Your task to perform on an android device: Empty the shopping cart on target. Search for "lenovo thinkpad" on target, select the first entry, add it to the cart, then select checkout. Image 0: 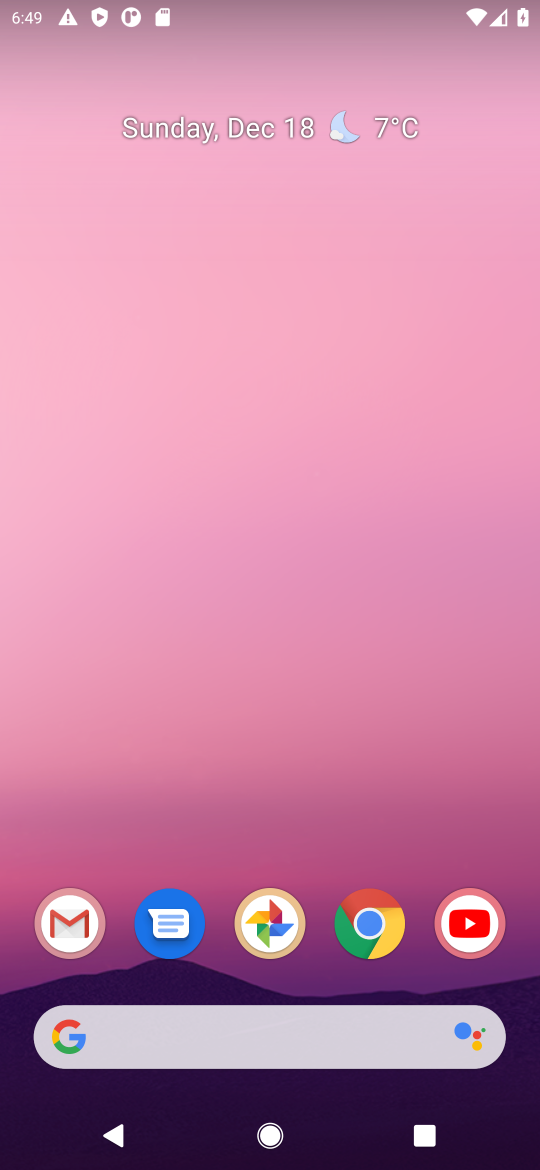
Step 0: press home button
Your task to perform on an android device: Empty the shopping cart on target. Search for "lenovo thinkpad" on target, select the first entry, add it to the cart, then select checkout. Image 1: 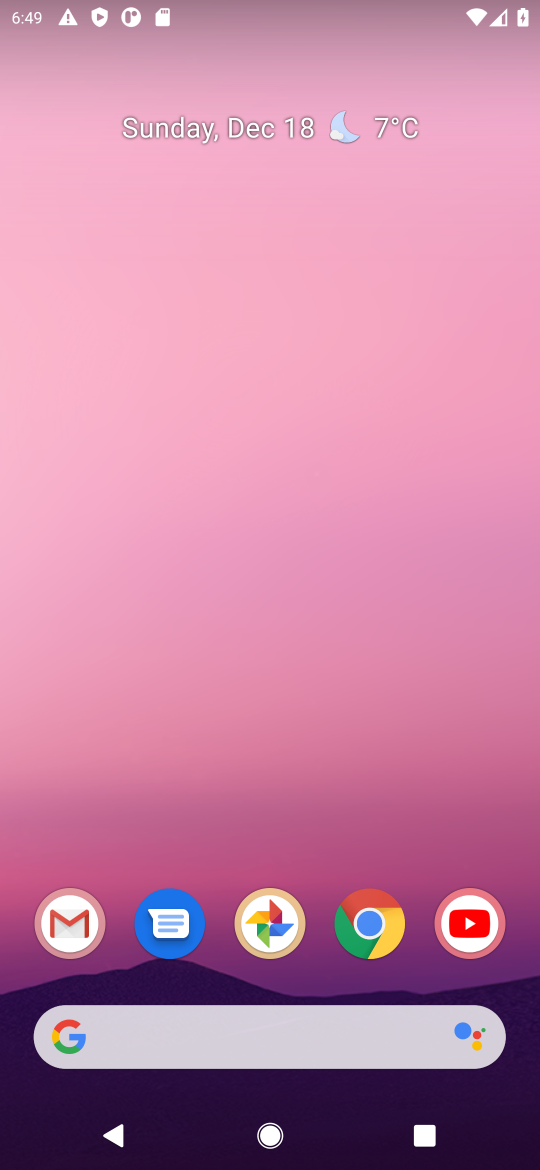
Step 1: click (93, 1032)
Your task to perform on an android device: Empty the shopping cart on target. Search for "lenovo thinkpad" on target, select the first entry, add it to the cart, then select checkout. Image 2: 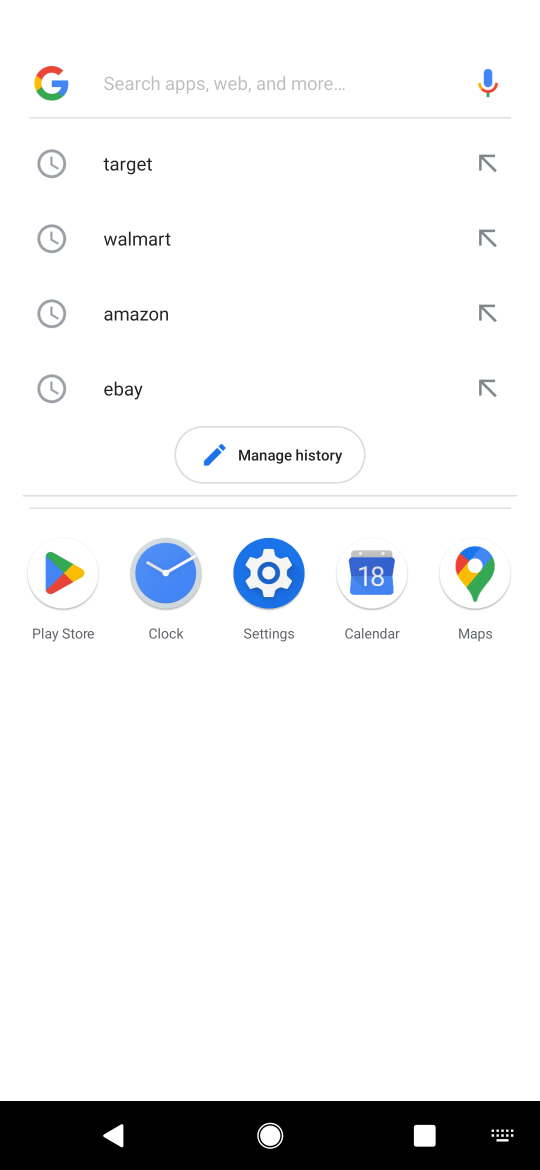
Step 2: type "target"
Your task to perform on an android device: Empty the shopping cart on target. Search for "lenovo thinkpad" on target, select the first entry, add it to the cart, then select checkout. Image 3: 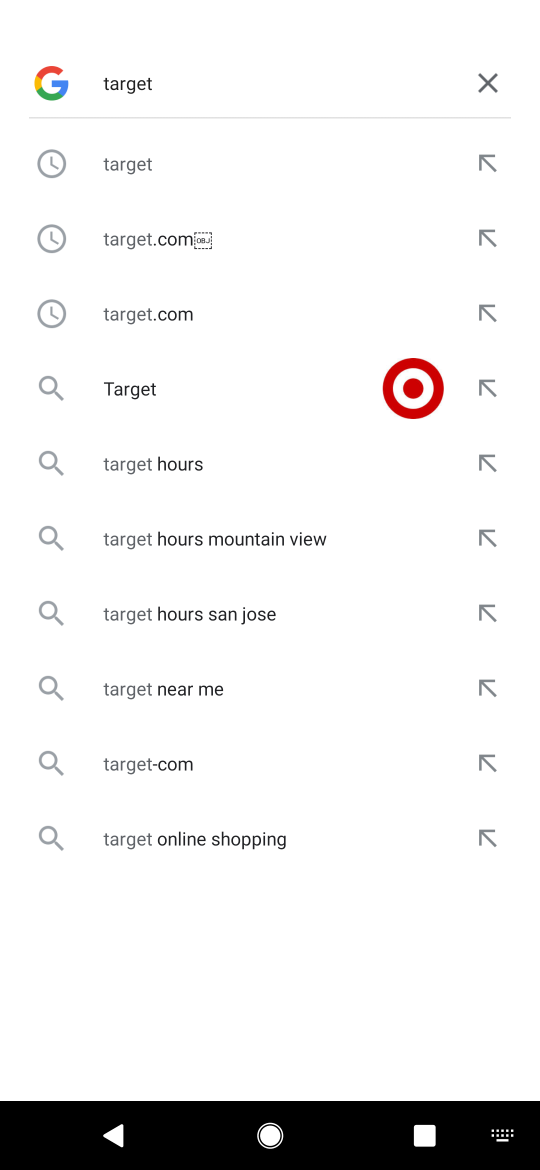
Step 3: press enter
Your task to perform on an android device: Empty the shopping cart on target. Search for "lenovo thinkpad" on target, select the first entry, add it to the cart, then select checkout. Image 4: 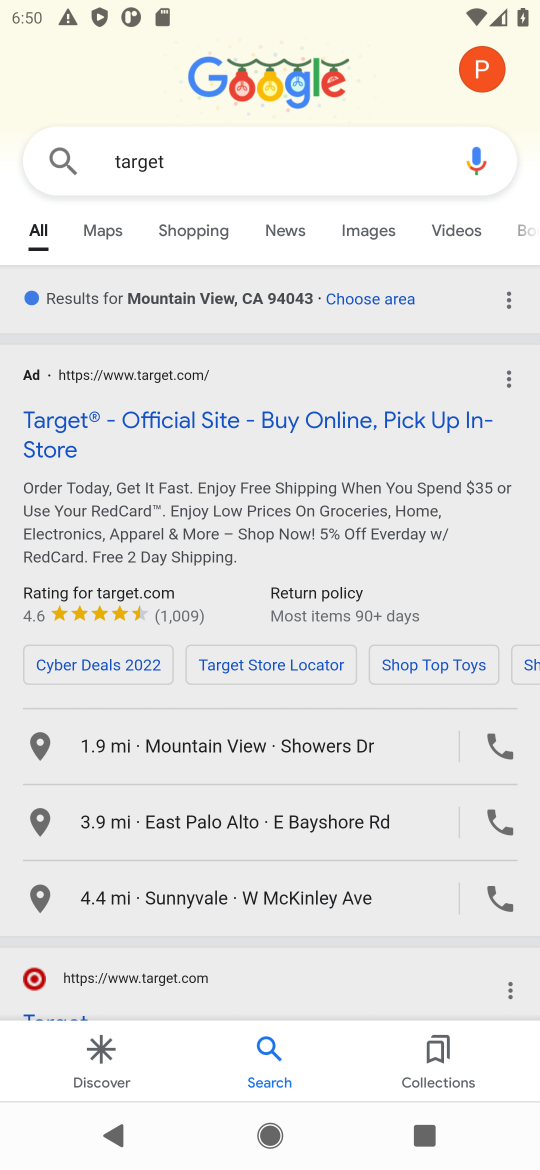
Step 4: click (307, 415)
Your task to perform on an android device: Empty the shopping cart on target. Search for "lenovo thinkpad" on target, select the first entry, add it to the cart, then select checkout. Image 5: 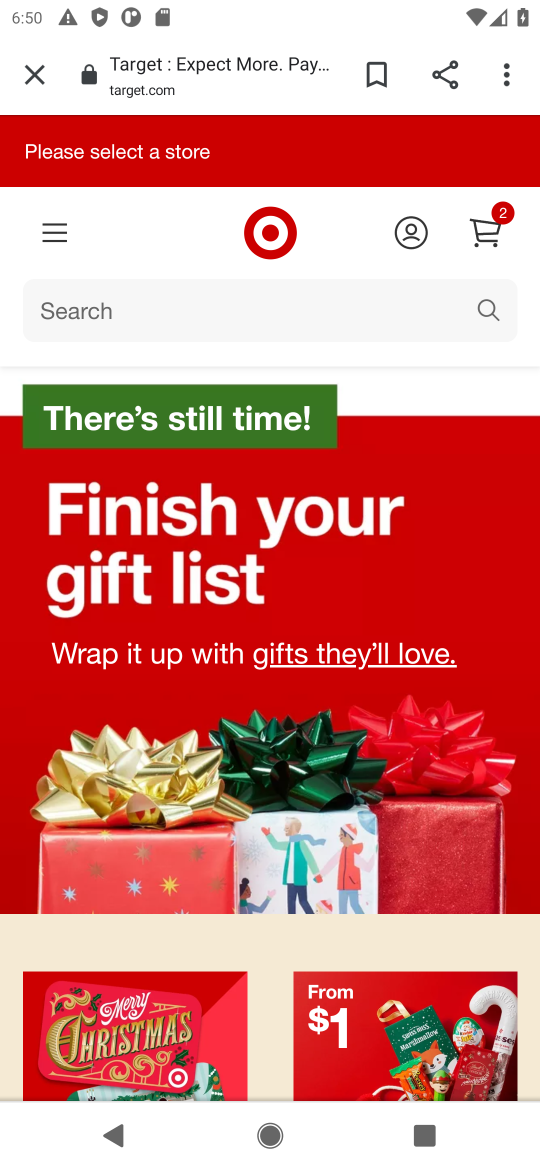
Step 5: click (485, 227)
Your task to perform on an android device: Empty the shopping cart on target. Search for "lenovo thinkpad" on target, select the first entry, add it to the cart, then select checkout. Image 6: 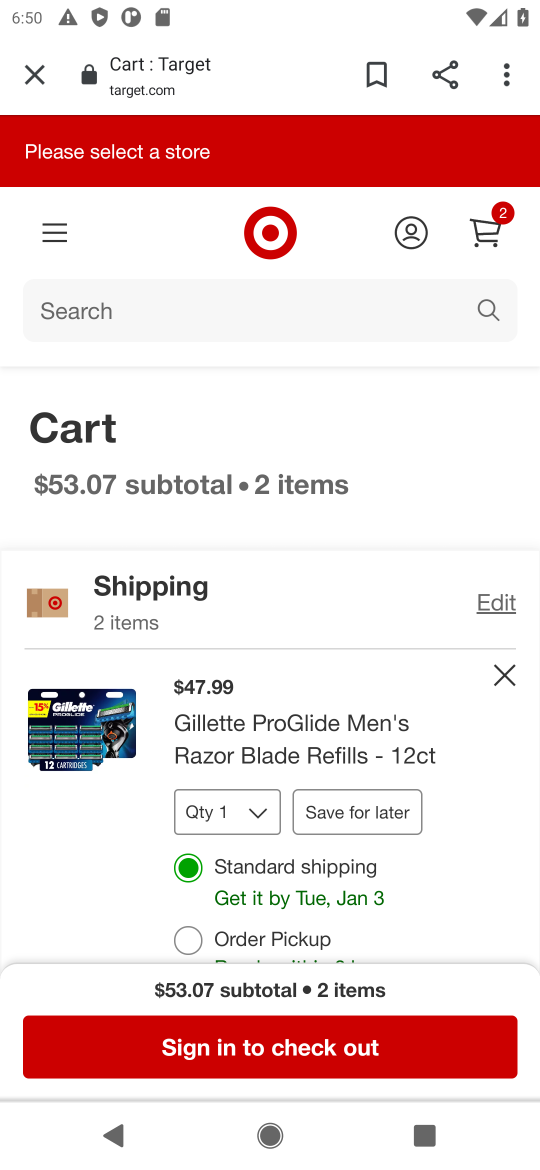
Step 6: click (507, 672)
Your task to perform on an android device: Empty the shopping cart on target. Search for "lenovo thinkpad" on target, select the first entry, add it to the cart, then select checkout. Image 7: 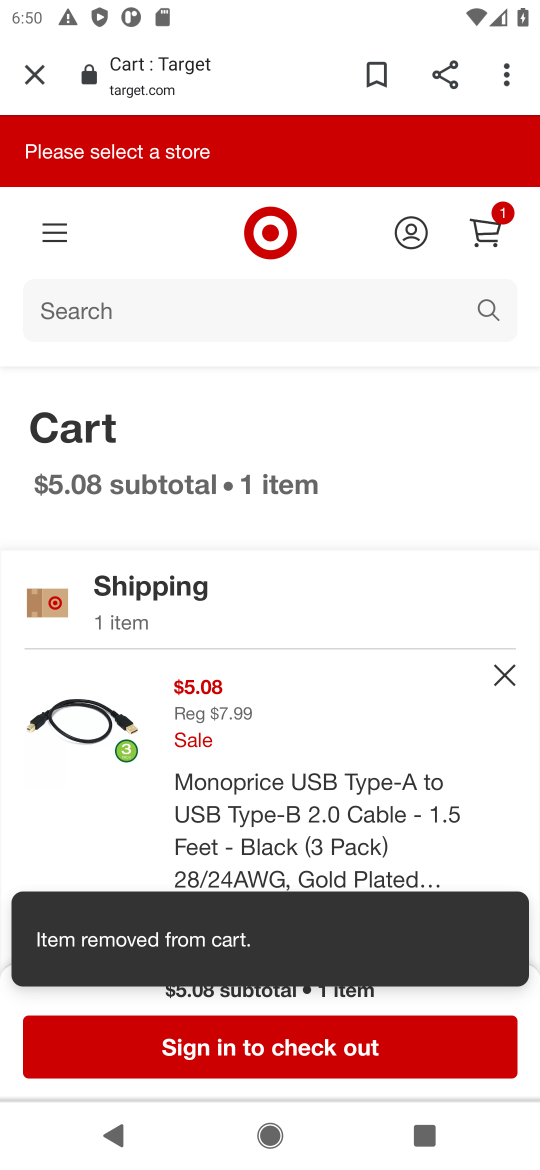
Step 7: click (502, 671)
Your task to perform on an android device: Empty the shopping cart on target. Search for "lenovo thinkpad" on target, select the first entry, add it to the cart, then select checkout. Image 8: 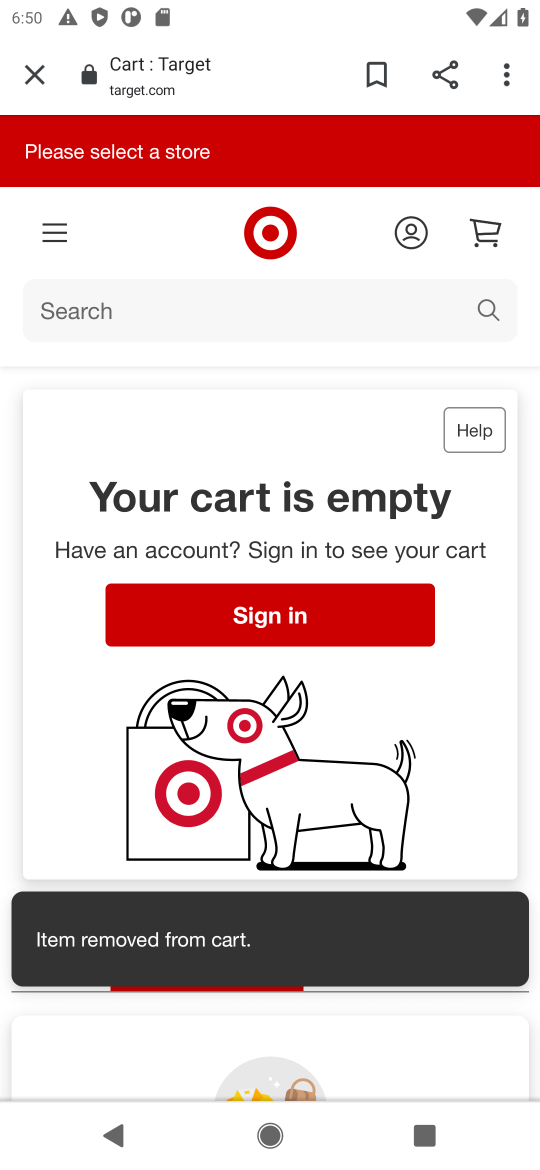
Step 8: click (63, 304)
Your task to perform on an android device: Empty the shopping cart on target. Search for "lenovo thinkpad" on target, select the first entry, add it to the cart, then select checkout. Image 9: 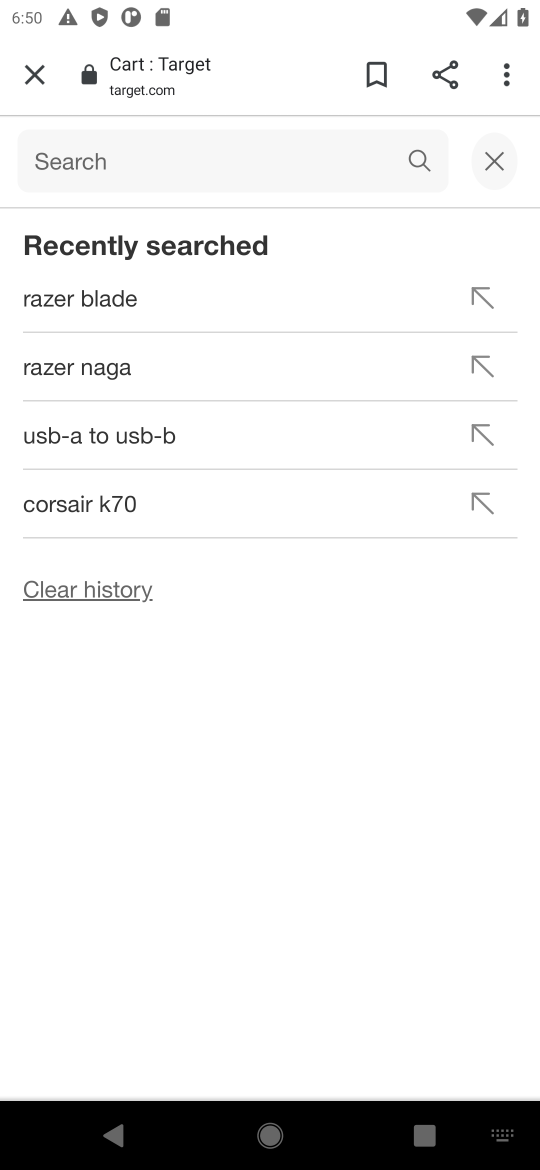
Step 9: type "lenovo thinkpad"
Your task to perform on an android device: Empty the shopping cart on target. Search for "lenovo thinkpad" on target, select the first entry, add it to the cart, then select checkout. Image 10: 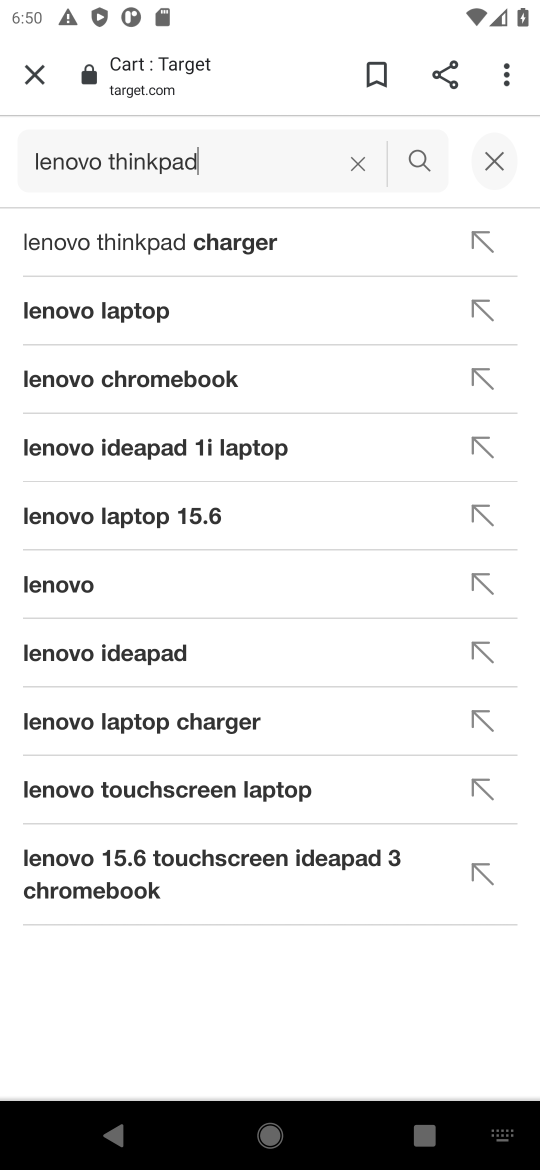
Step 10: press enter
Your task to perform on an android device: Empty the shopping cart on target. Search for "lenovo thinkpad" on target, select the first entry, add it to the cart, then select checkout. Image 11: 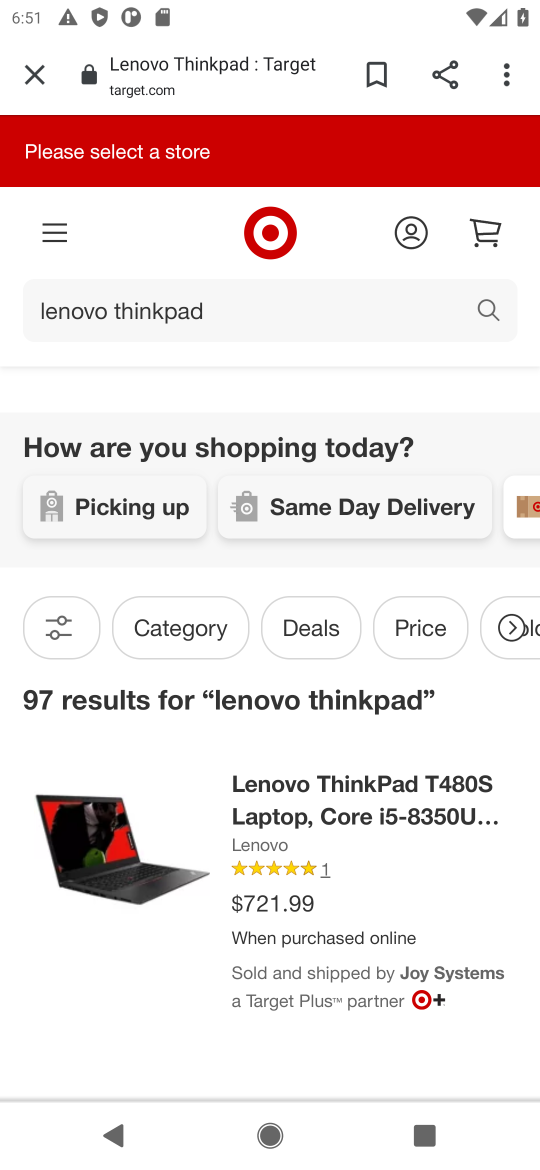
Step 11: click (280, 819)
Your task to perform on an android device: Empty the shopping cart on target. Search for "lenovo thinkpad" on target, select the first entry, add it to the cart, then select checkout. Image 12: 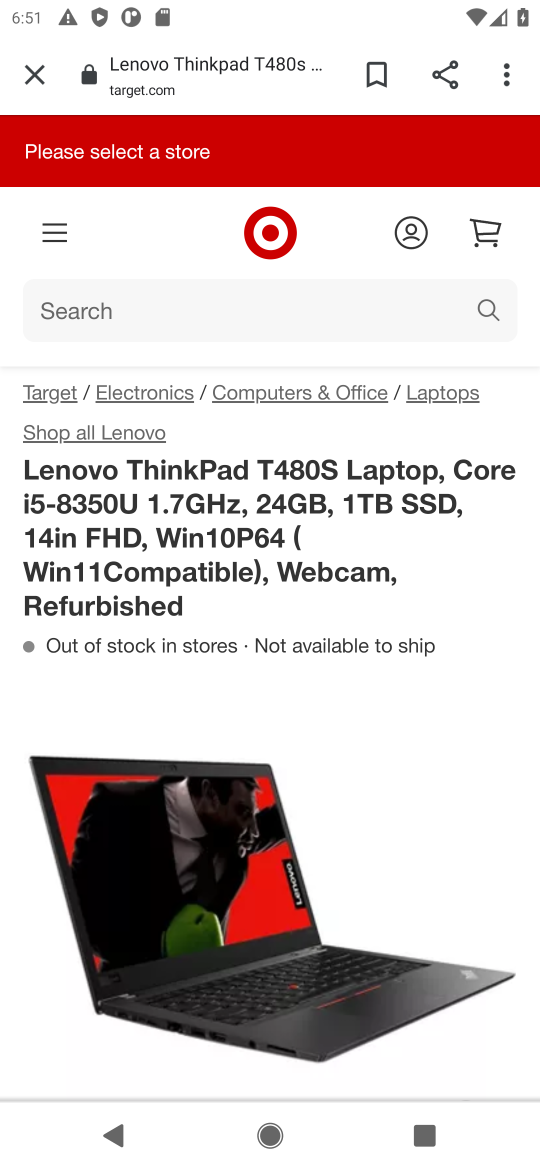
Step 12: drag from (328, 952) to (324, 312)
Your task to perform on an android device: Empty the shopping cart on target. Search for "lenovo thinkpad" on target, select the first entry, add it to the cart, then select checkout. Image 13: 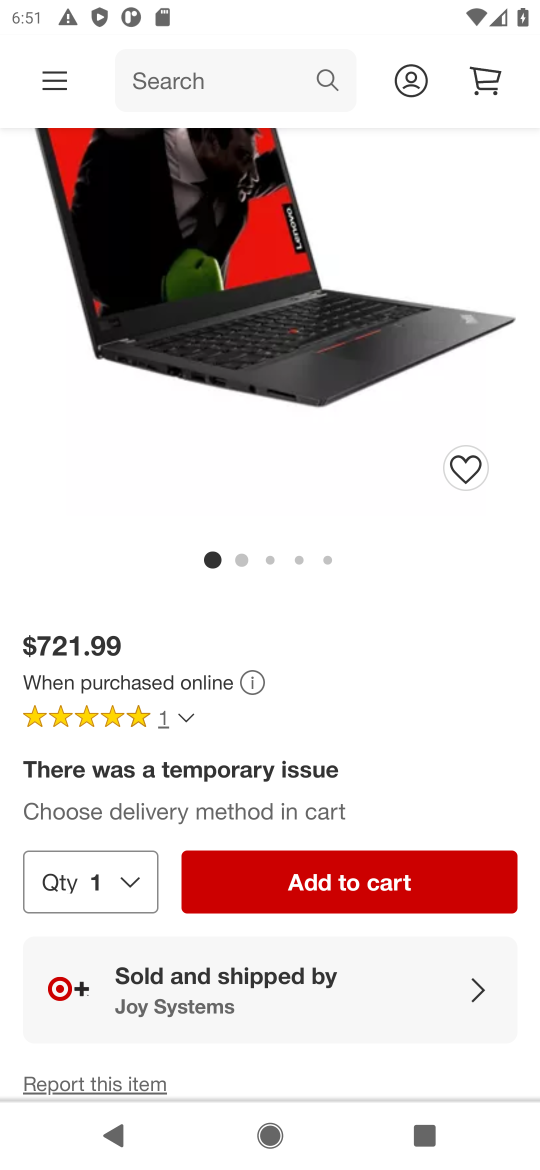
Step 13: click (330, 877)
Your task to perform on an android device: Empty the shopping cart on target. Search for "lenovo thinkpad" on target, select the first entry, add it to the cart, then select checkout. Image 14: 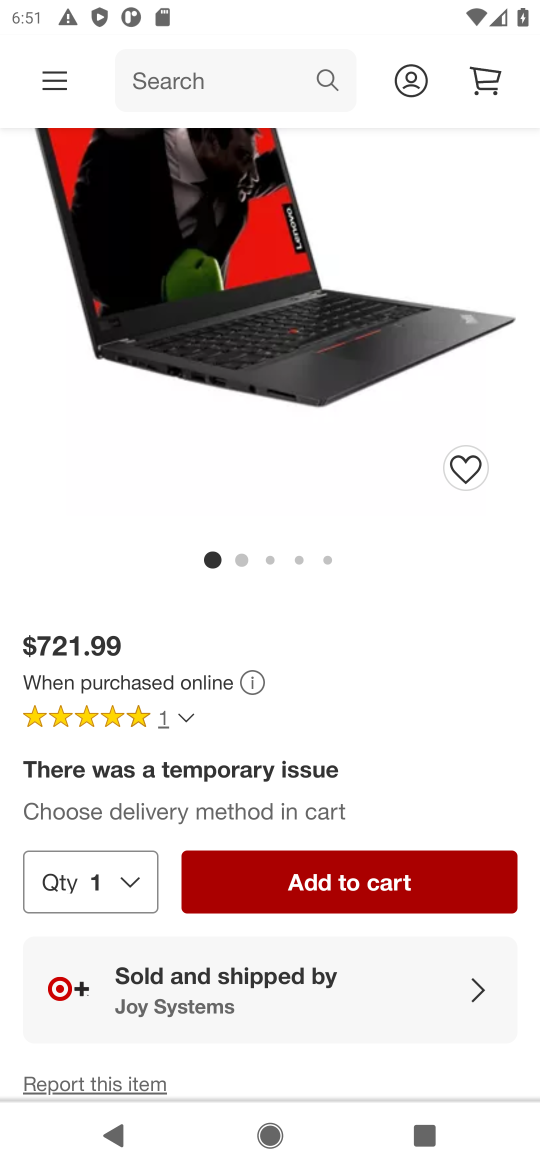
Step 14: click (314, 883)
Your task to perform on an android device: Empty the shopping cart on target. Search for "lenovo thinkpad" on target, select the first entry, add it to the cart, then select checkout. Image 15: 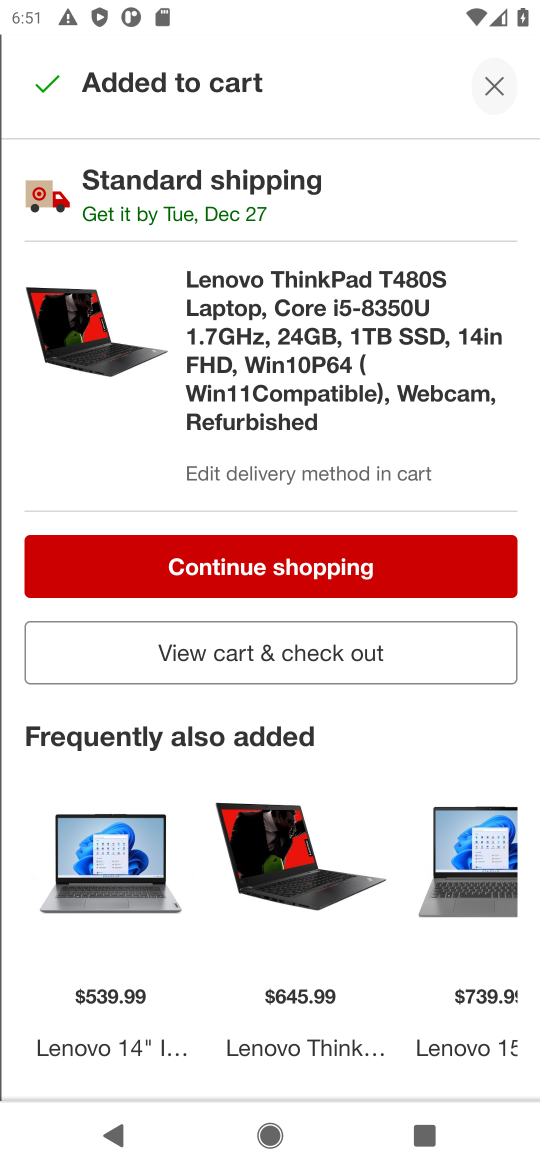
Step 15: task complete